Your task to perform on an android device: Open calendar and show me the fourth week of next month Image 0: 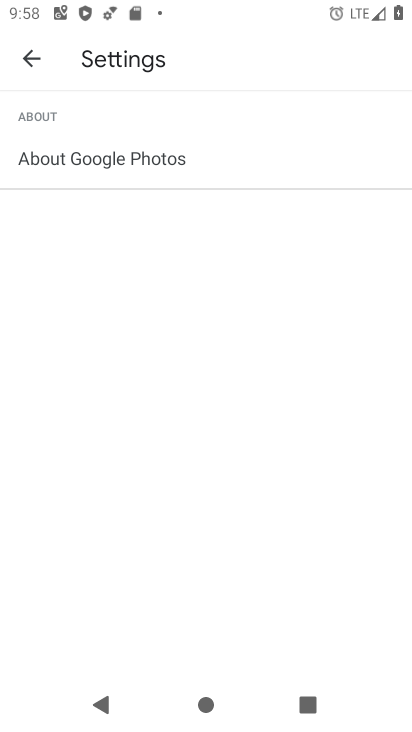
Step 0: press home button
Your task to perform on an android device: Open calendar and show me the fourth week of next month Image 1: 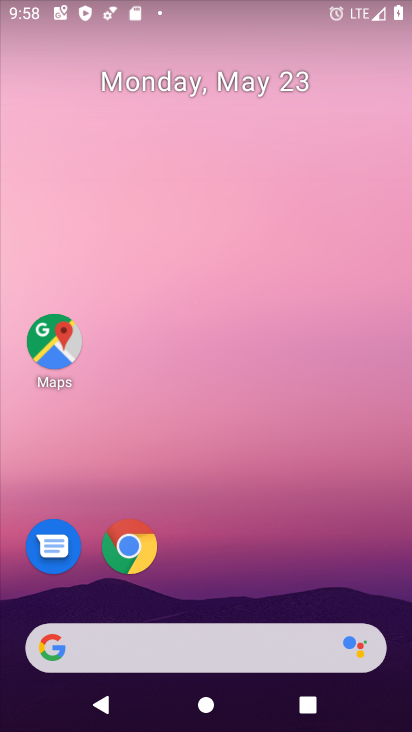
Step 1: drag from (372, 538) to (312, 74)
Your task to perform on an android device: Open calendar and show me the fourth week of next month Image 2: 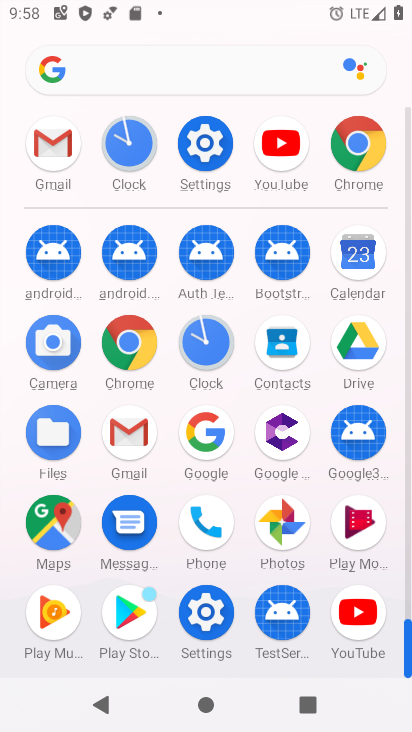
Step 2: click (358, 256)
Your task to perform on an android device: Open calendar and show me the fourth week of next month Image 3: 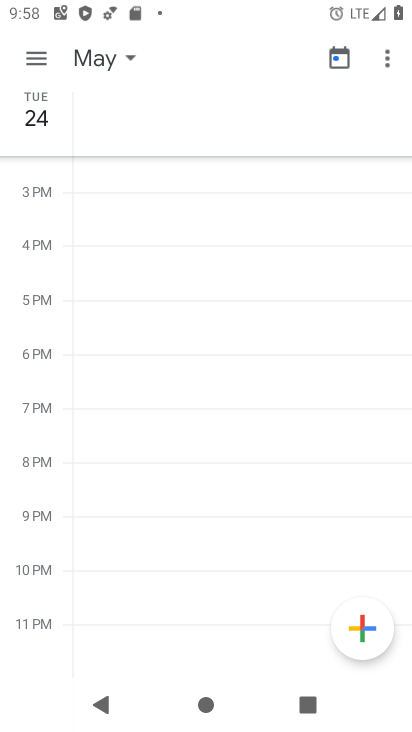
Step 3: click (36, 59)
Your task to perform on an android device: Open calendar and show me the fourth week of next month Image 4: 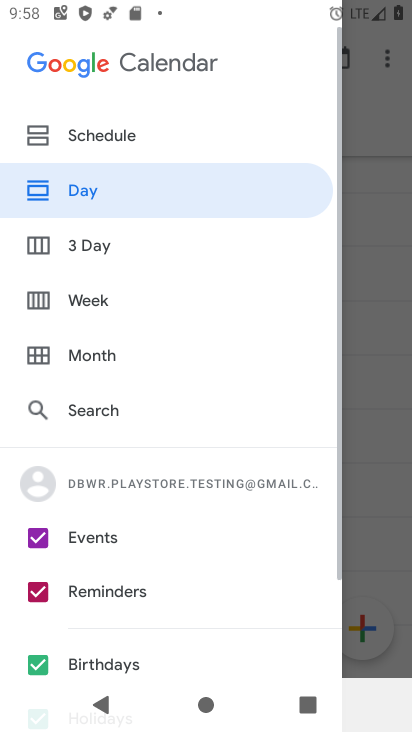
Step 4: click (91, 295)
Your task to perform on an android device: Open calendar and show me the fourth week of next month Image 5: 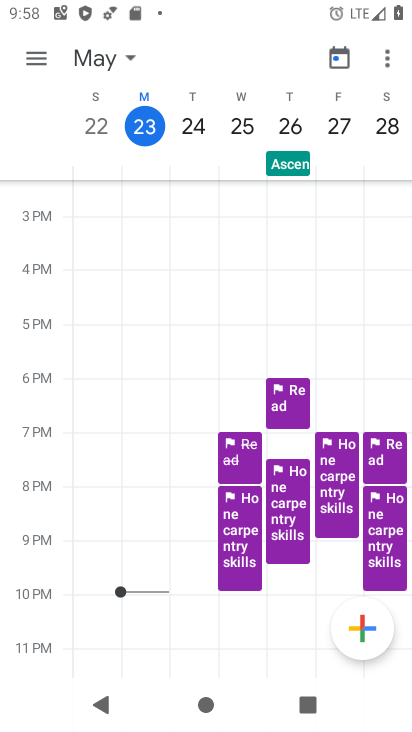
Step 5: click (127, 58)
Your task to perform on an android device: Open calendar and show me the fourth week of next month Image 6: 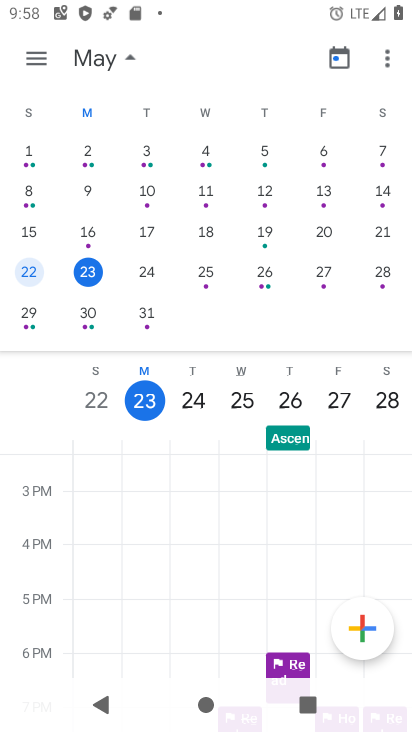
Step 6: drag from (378, 251) to (82, 202)
Your task to perform on an android device: Open calendar and show me the fourth week of next month Image 7: 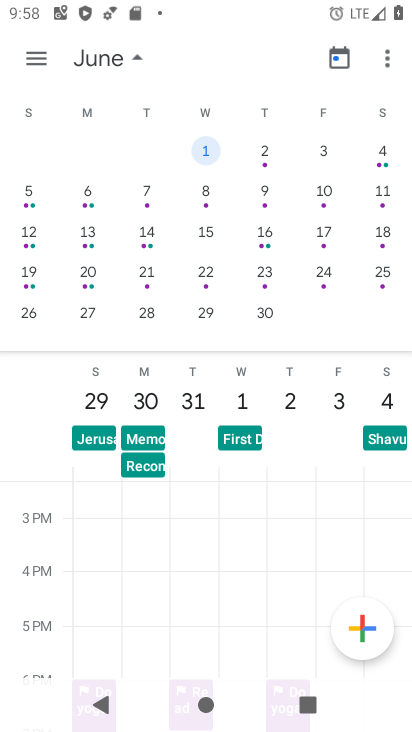
Step 7: click (24, 273)
Your task to perform on an android device: Open calendar and show me the fourth week of next month Image 8: 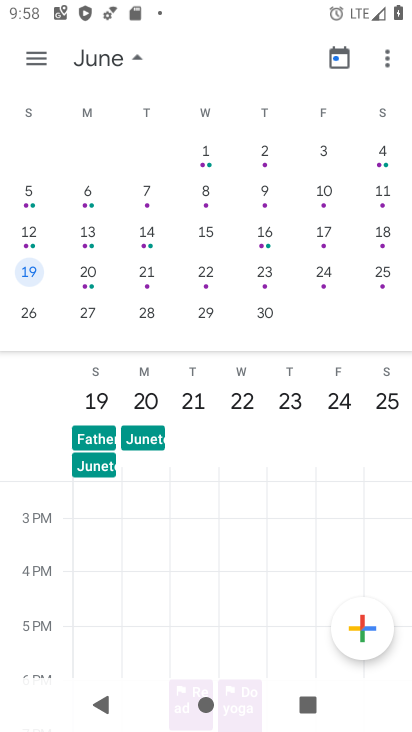
Step 8: task complete